Your task to perform on an android device: Open Google Image 0: 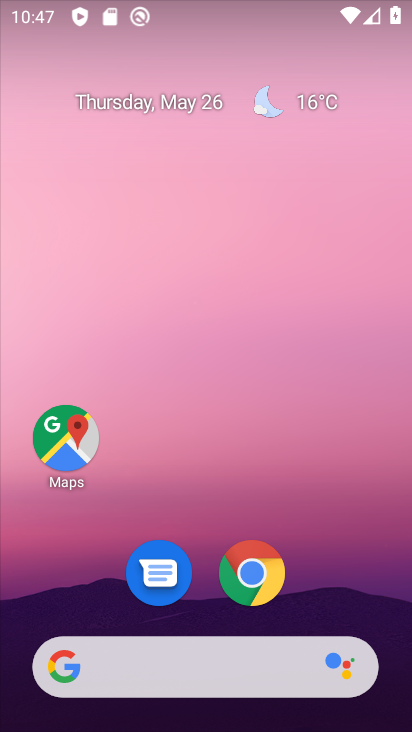
Step 0: drag from (355, 619) to (364, 168)
Your task to perform on an android device: Open Google Image 1: 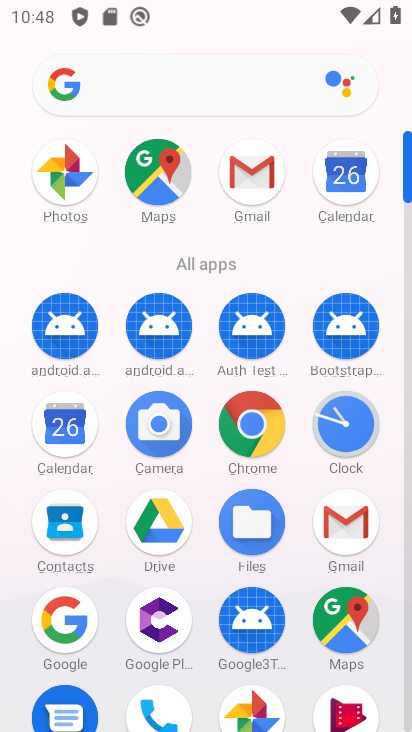
Step 1: click (66, 610)
Your task to perform on an android device: Open Google Image 2: 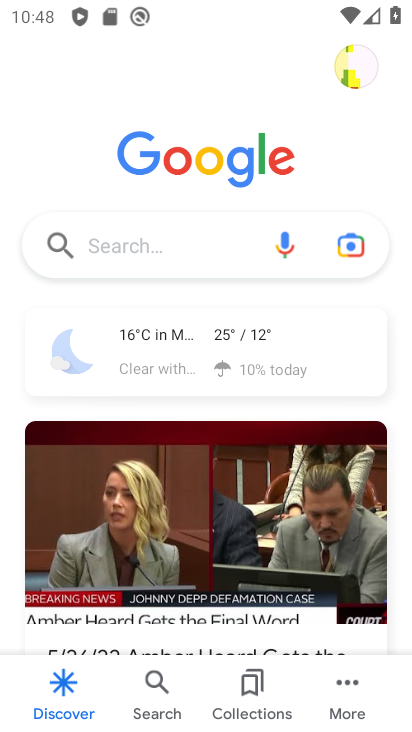
Step 2: task complete